Your task to perform on an android device: empty trash in google photos Image 0: 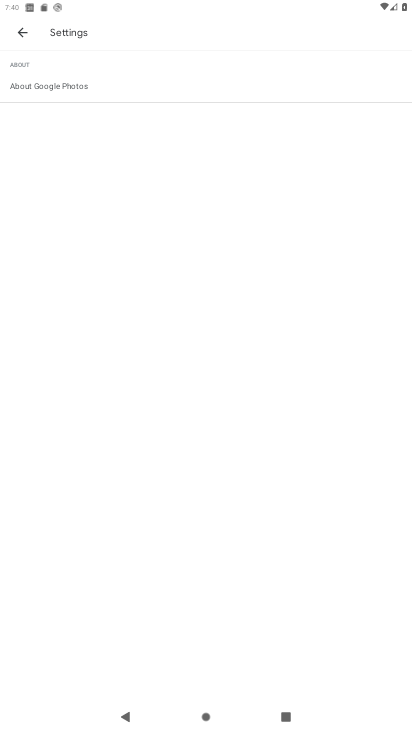
Step 0: click (398, 441)
Your task to perform on an android device: empty trash in google photos Image 1: 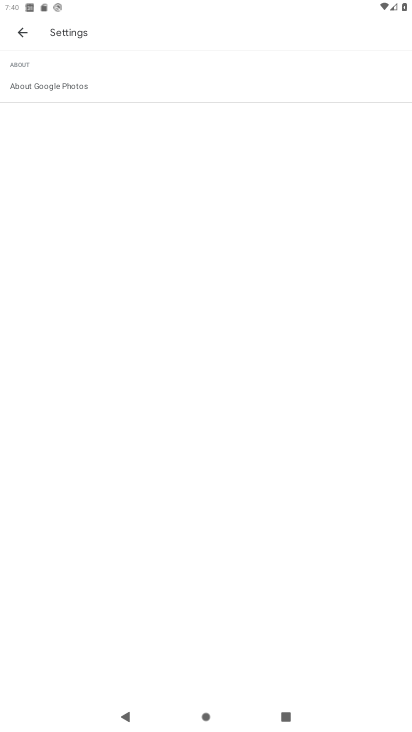
Step 1: press home button
Your task to perform on an android device: empty trash in google photos Image 2: 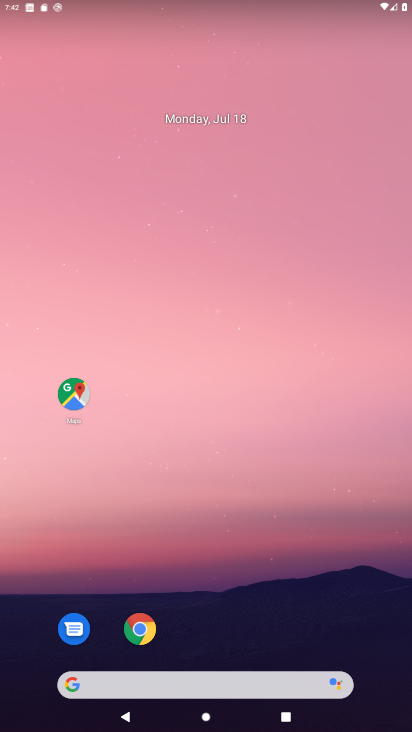
Step 2: drag from (72, 565) to (229, 35)
Your task to perform on an android device: empty trash in google photos Image 3: 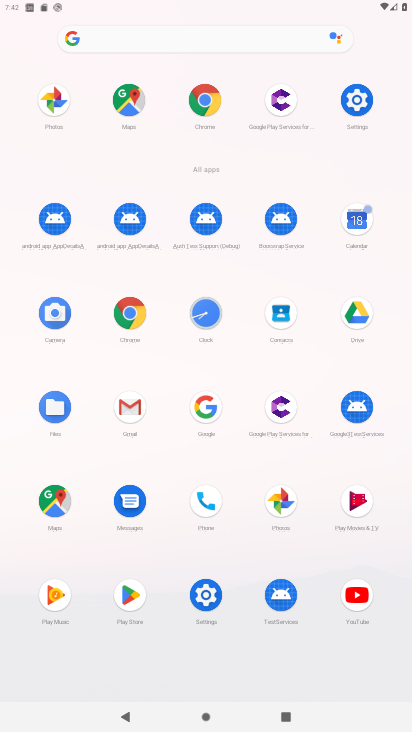
Step 3: click (287, 496)
Your task to perform on an android device: empty trash in google photos Image 4: 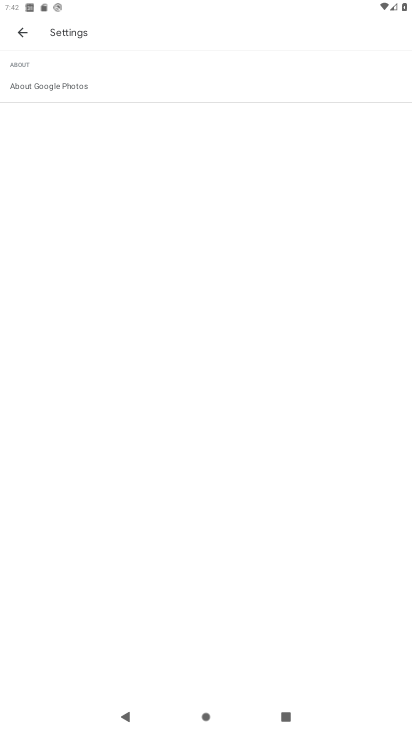
Step 4: click (13, 33)
Your task to perform on an android device: empty trash in google photos Image 5: 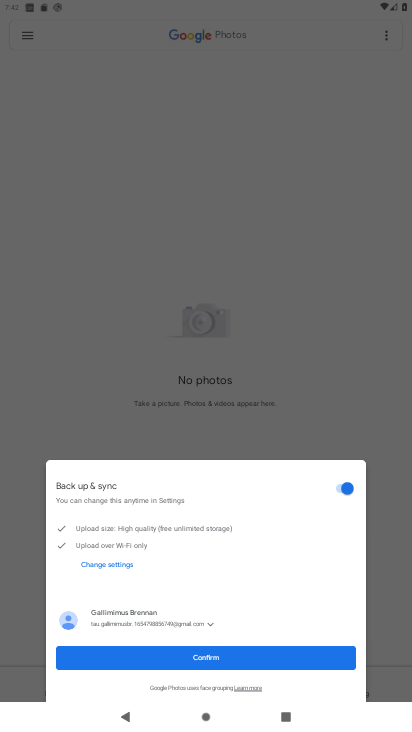
Step 5: click (220, 656)
Your task to perform on an android device: empty trash in google photos Image 6: 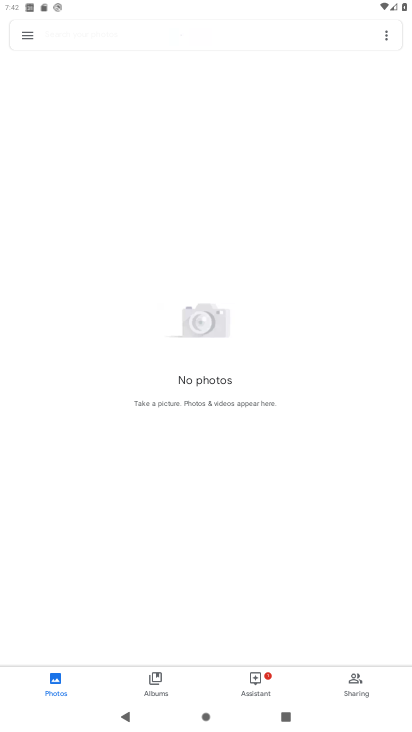
Step 6: click (28, 36)
Your task to perform on an android device: empty trash in google photos Image 7: 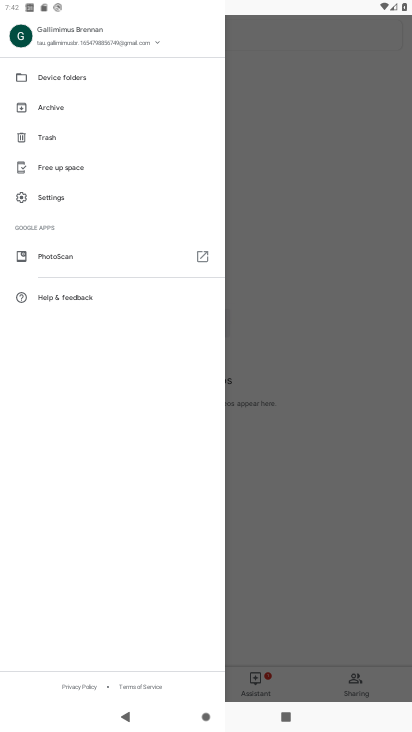
Step 7: click (61, 130)
Your task to perform on an android device: empty trash in google photos Image 8: 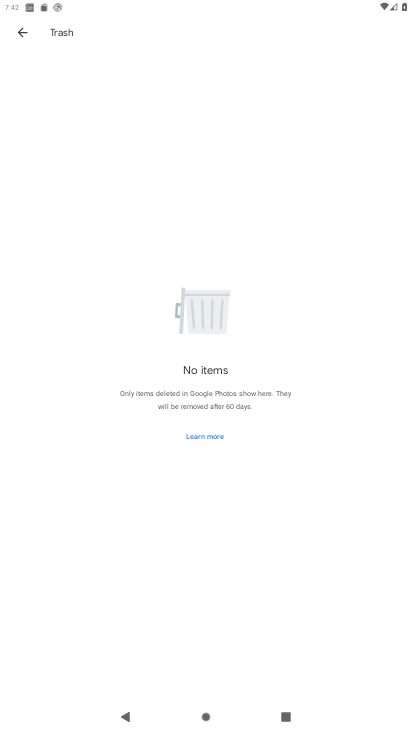
Step 8: task complete